Your task to perform on an android device: turn notification dots off Image 0: 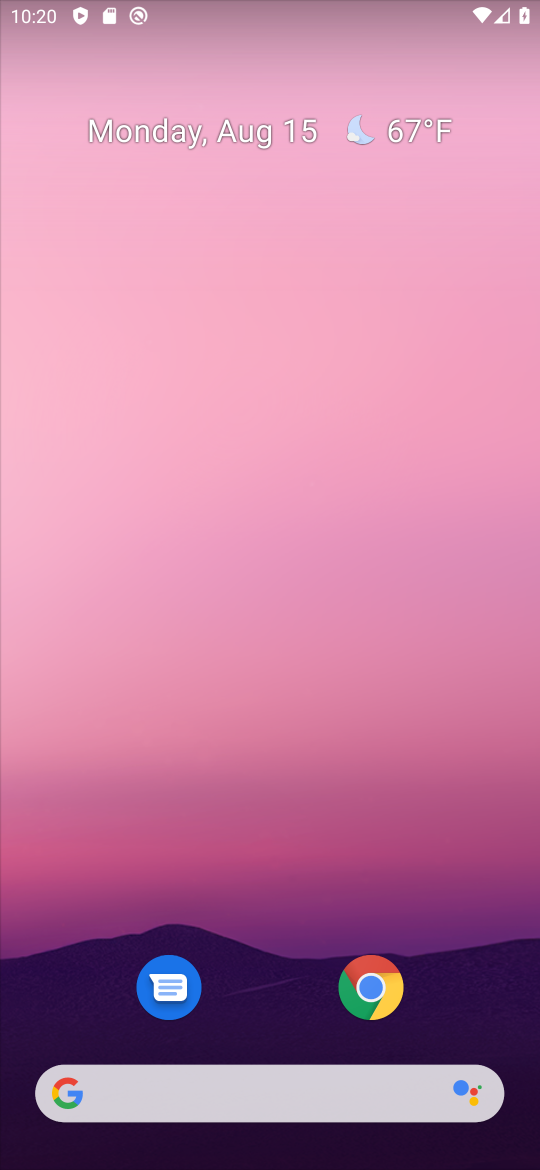
Step 0: drag from (225, 1082) to (105, 221)
Your task to perform on an android device: turn notification dots off Image 1: 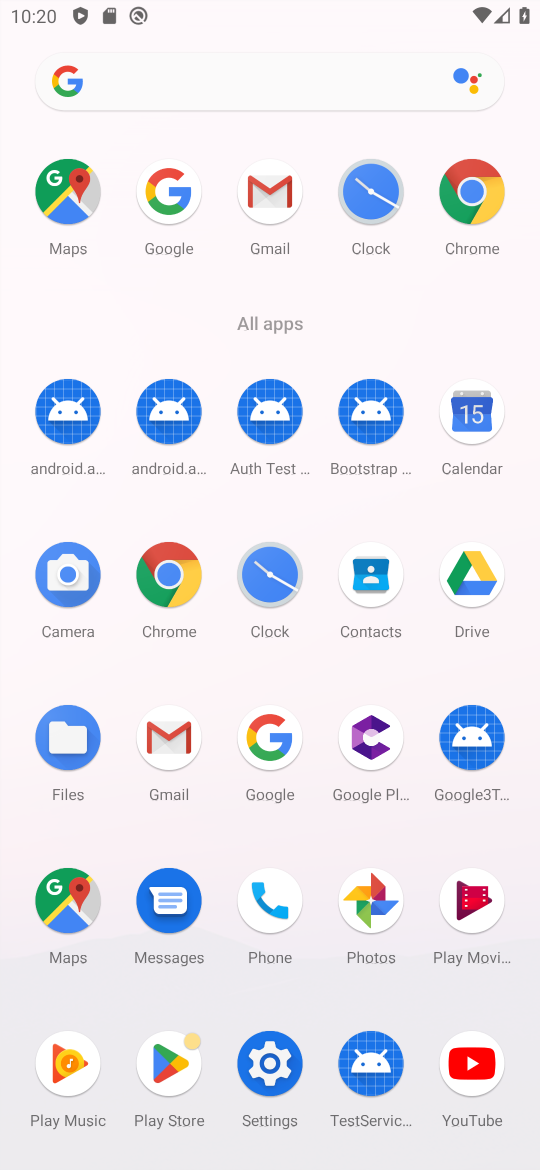
Step 1: click (252, 1066)
Your task to perform on an android device: turn notification dots off Image 2: 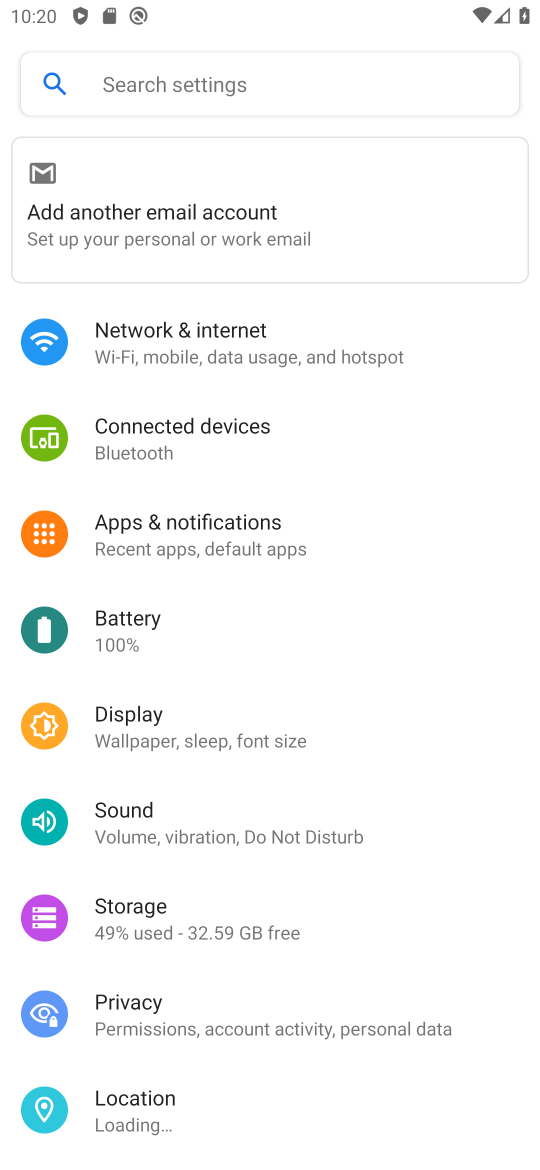
Step 2: click (236, 512)
Your task to perform on an android device: turn notification dots off Image 3: 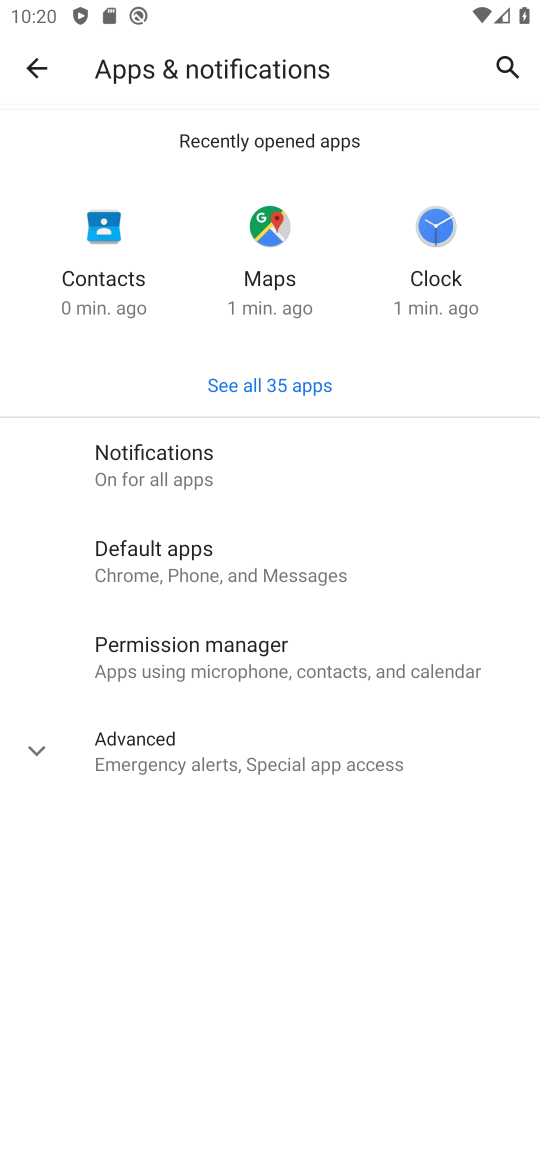
Step 3: click (99, 761)
Your task to perform on an android device: turn notification dots off Image 4: 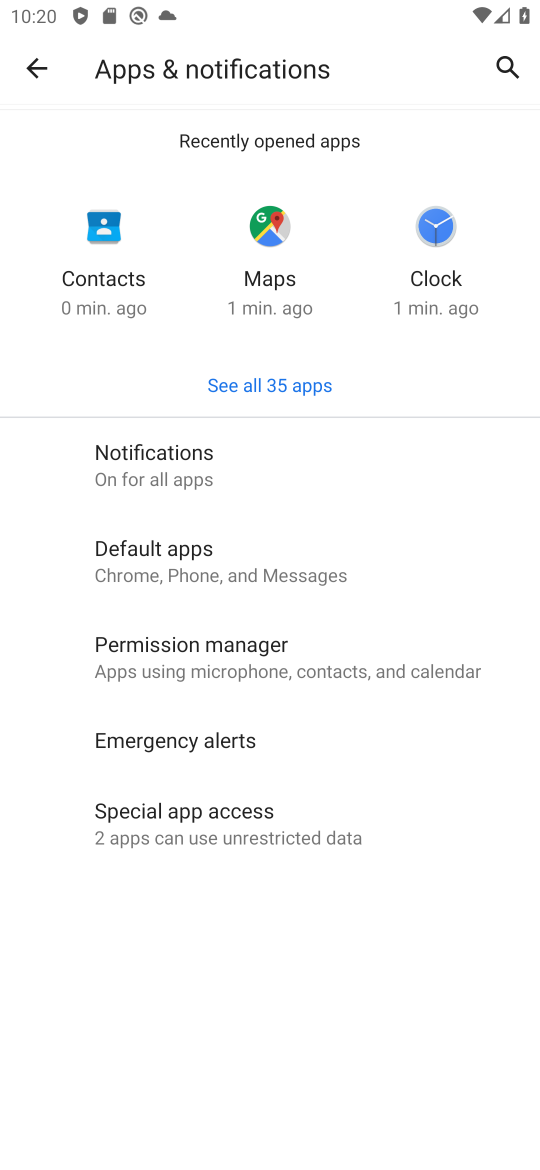
Step 4: click (187, 467)
Your task to perform on an android device: turn notification dots off Image 5: 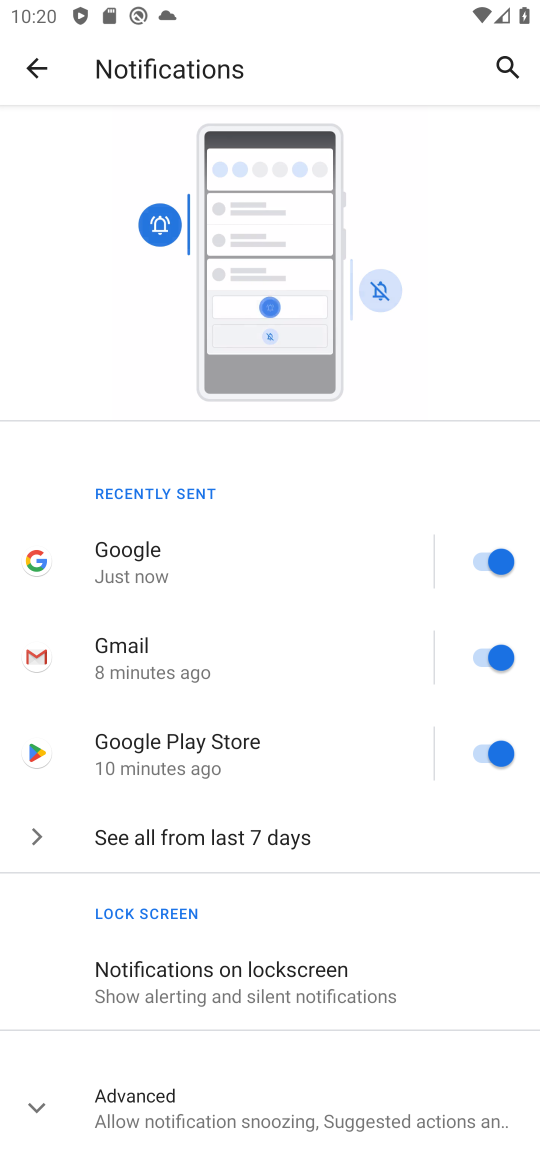
Step 5: drag from (308, 1101) to (289, 203)
Your task to perform on an android device: turn notification dots off Image 6: 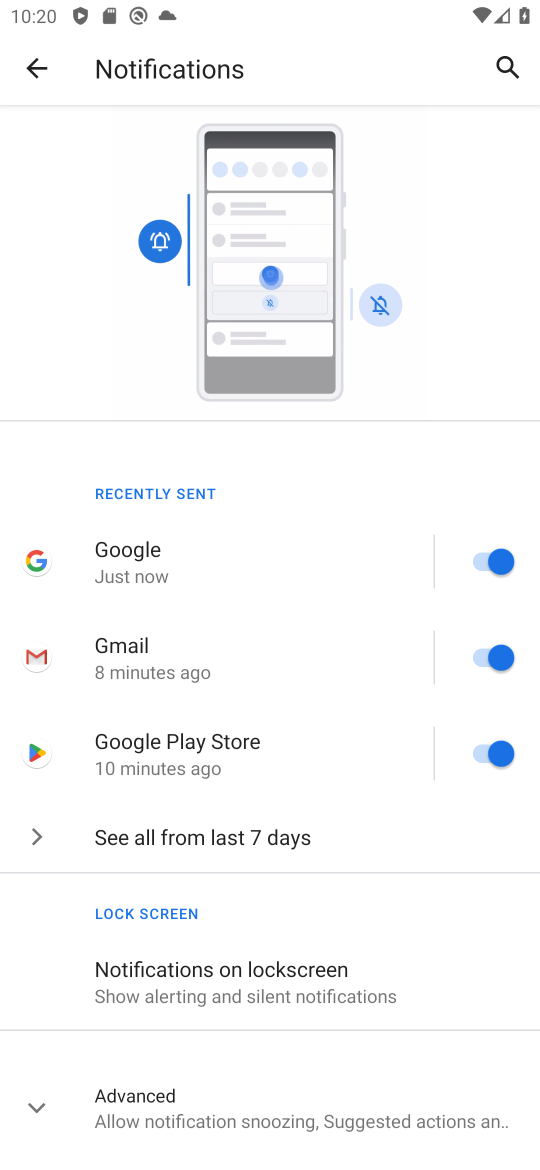
Step 6: click (185, 1114)
Your task to perform on an android device: turn notification dots off Image 7: 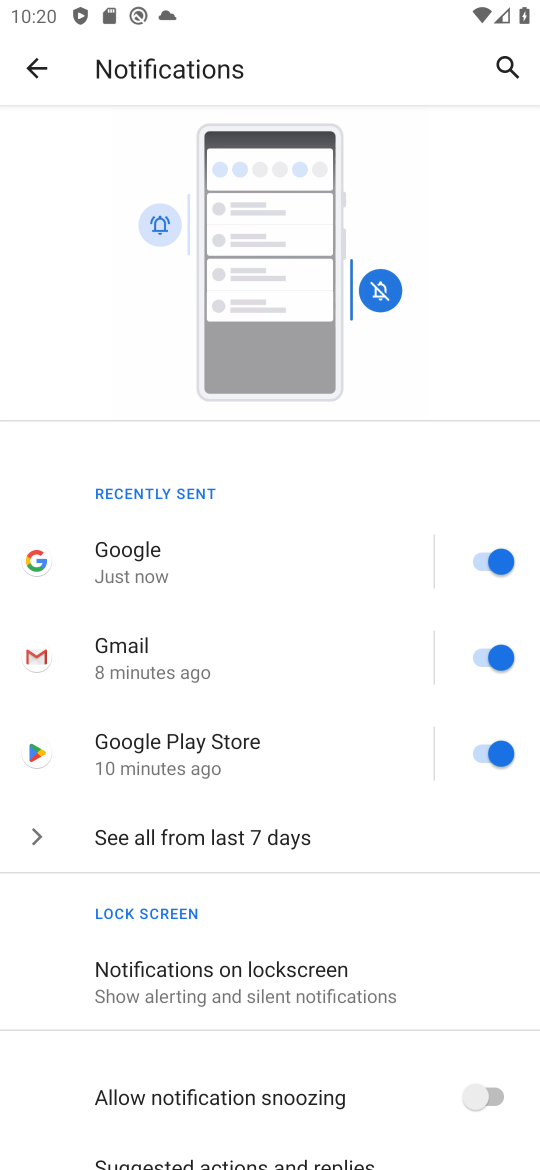
Step 7: drag from (185, 1114) to (203, 284)
Your task to perform on an android device: turn notification dots off Image 8: 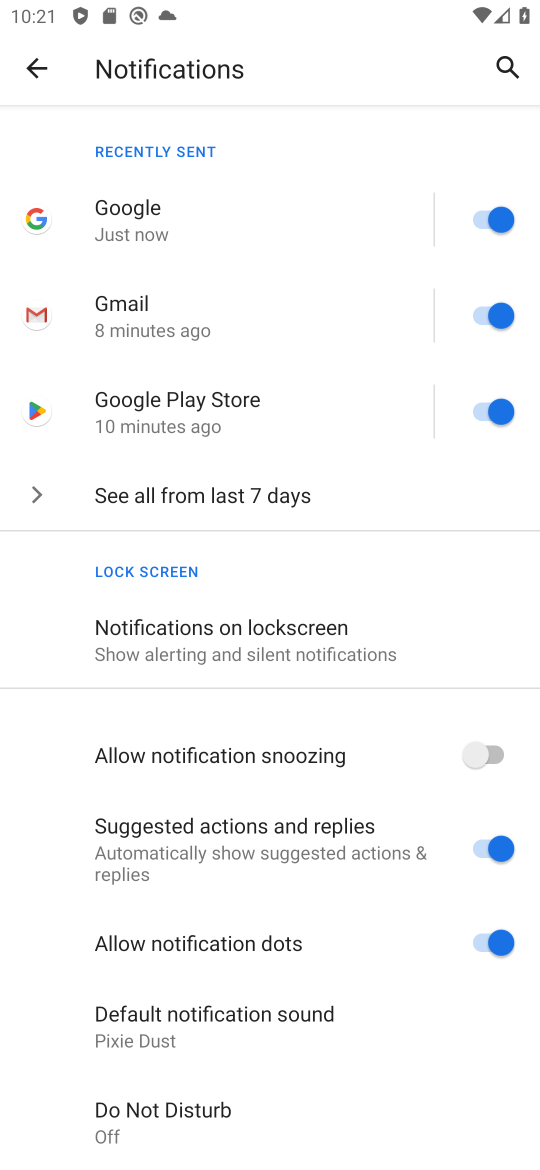
Step 8: click (499, 943)
Your task to perform on an android device: turn notification dots off Image 9: 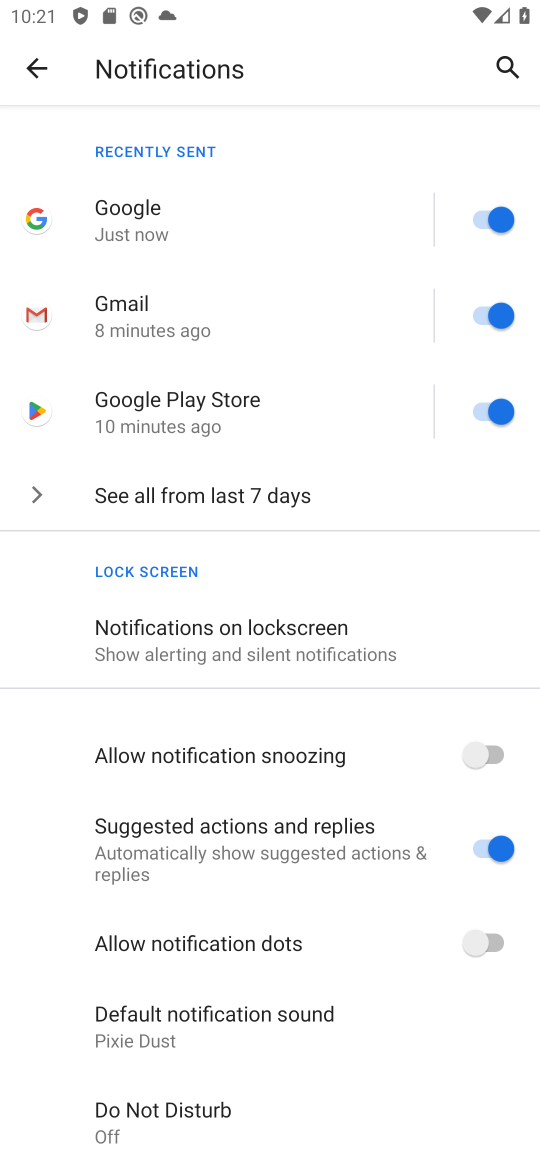
Step 9: task complete